Your task to perform on an android device: Open Wikipedia Image 0: 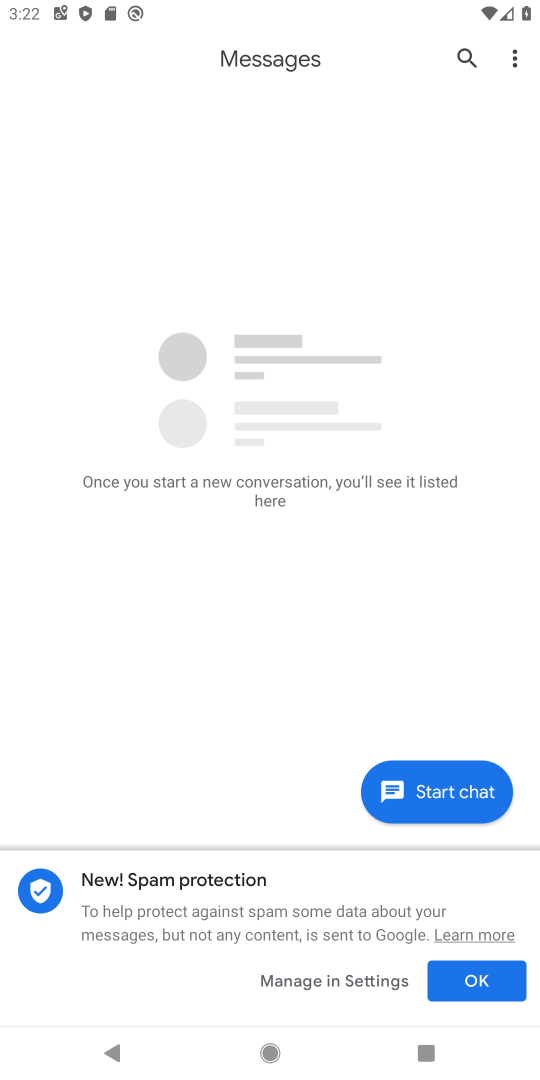
Step 0: press home button
Your task to perform on an android device: Open Wikipedia Image 1: 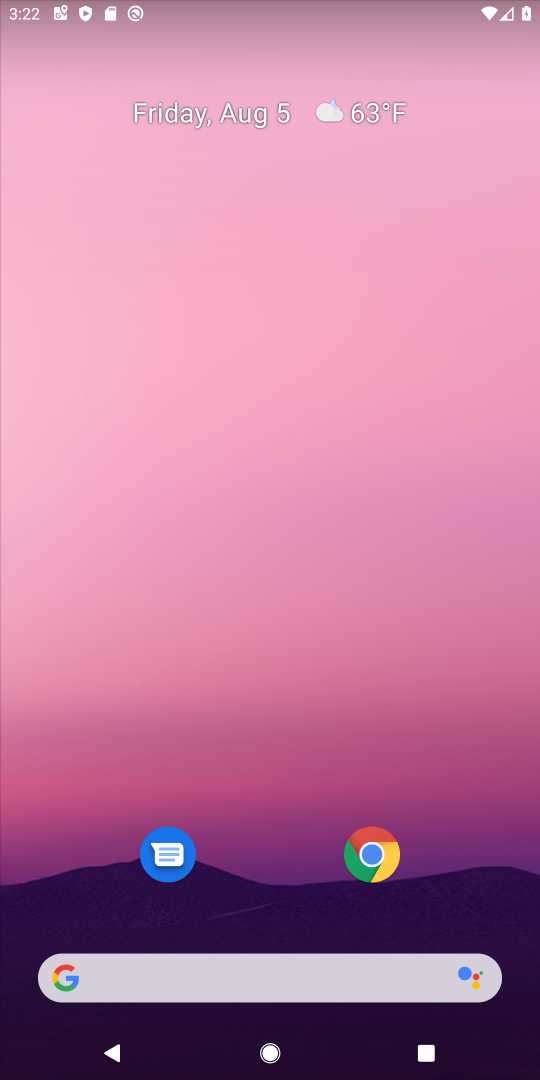
Step 1: click (170, 957)
Your task to perform on an android device: Open Wikipedia Image 2: 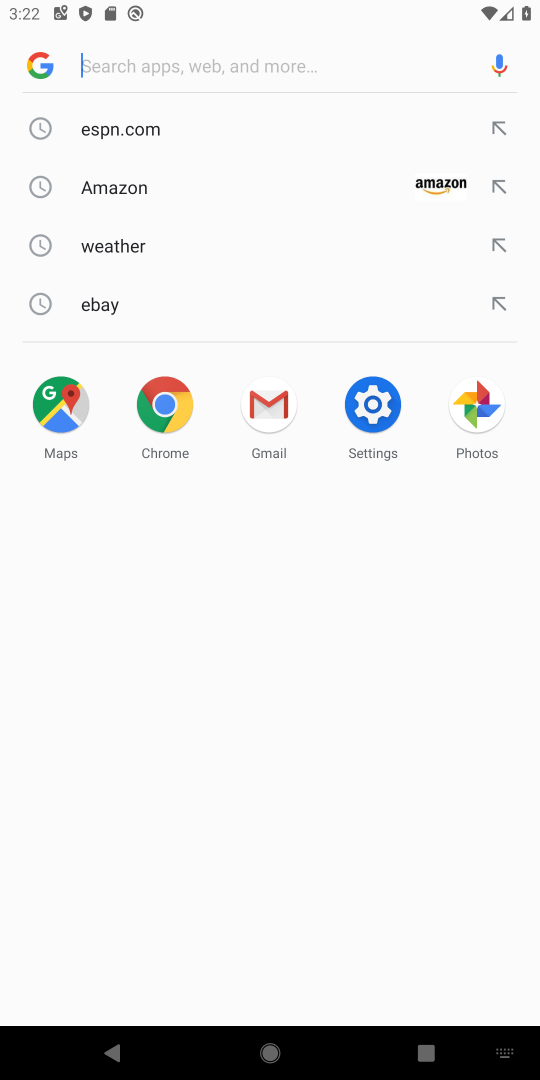
Step 2: type "Wikipedia"
Your task to perform on an android device: Open Wikipedia Image 3: 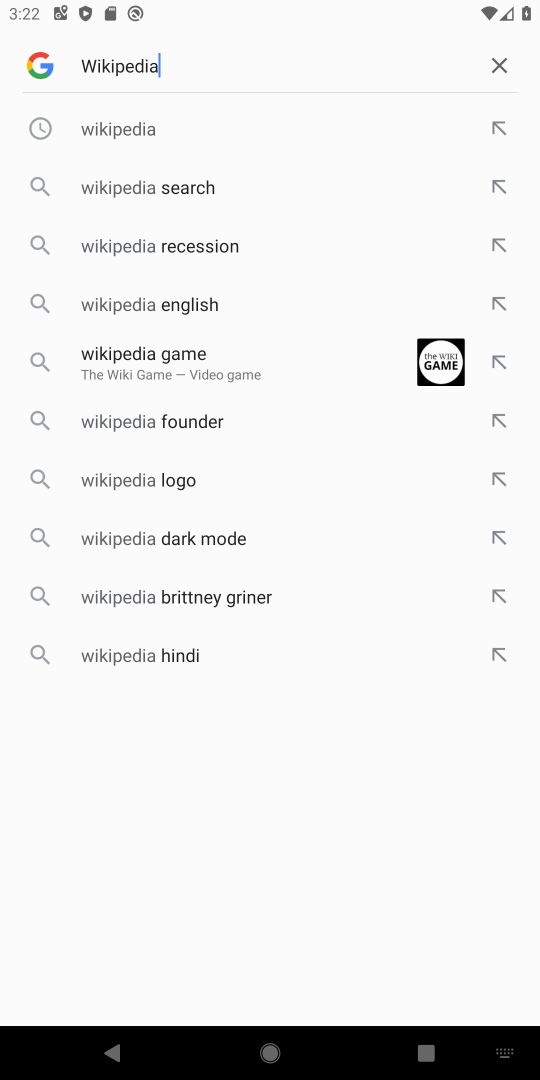
Step 3: click (156, 140)
Your task to perform on an android device: Open Wikipedia Image 4: 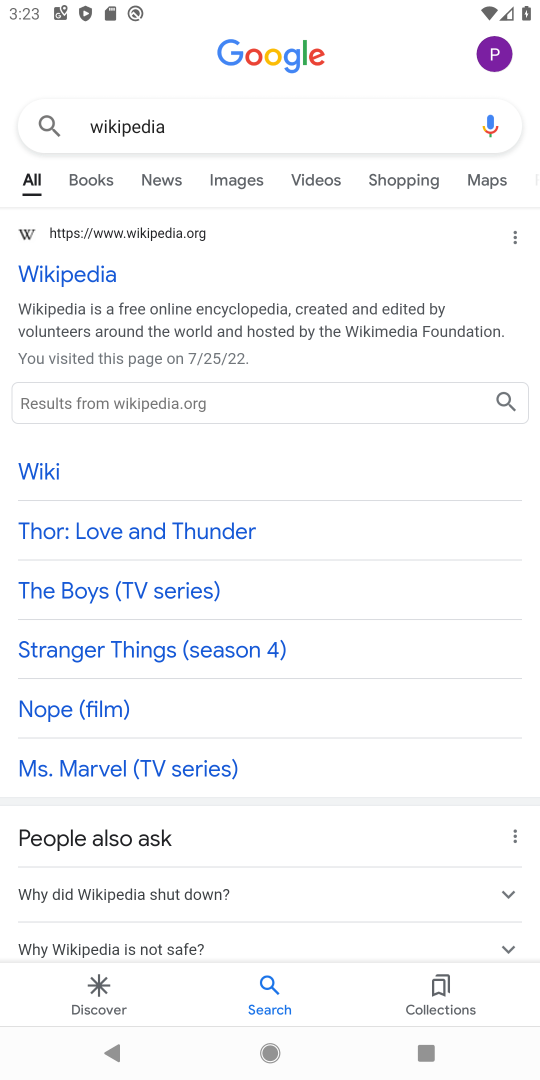
Step 4: task complete